Your task to perform on an android device: When is my next appointment? Image 0: 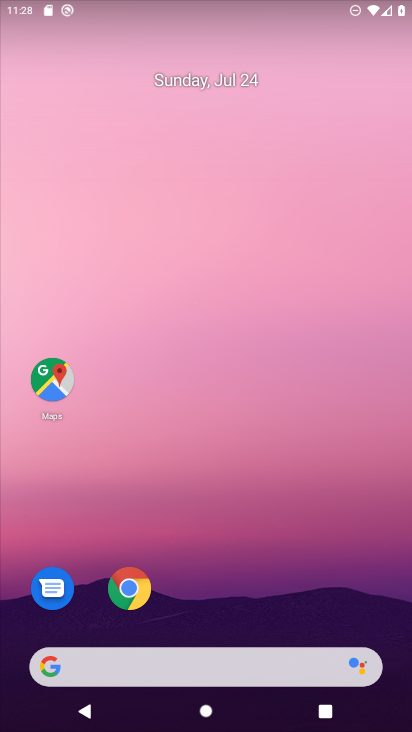
Step 0: drag from (243, 624) to (204, 207)
Your task to perform on an android device: When is my next appointment? Image 1: 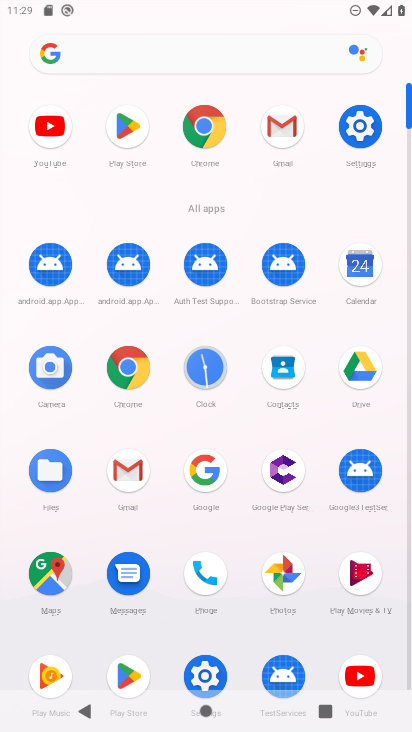
Step 1: click (377, 266)
Your task to perform on an android device: When is my next appointment? Image 2: 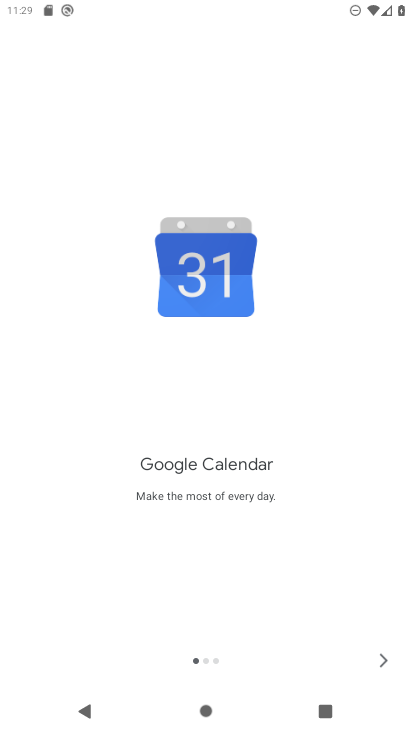
Step 2: click (382, 662)
Your task to perform on an android device: When is my next appointment? Image 3: 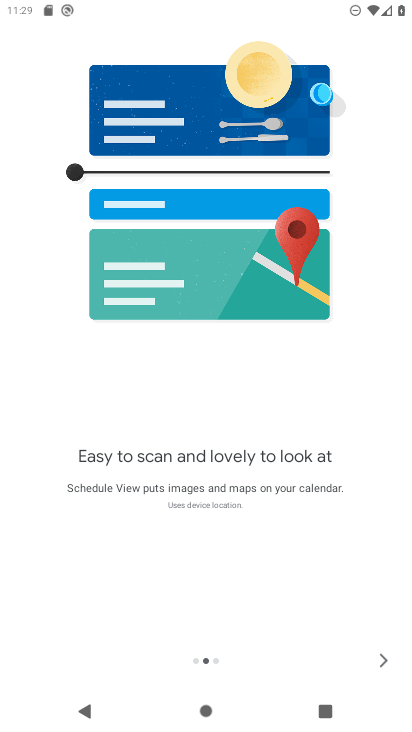
Step 3: click (382, 662)
Your task to perform on an android device: When is my next appointment? Image 4: 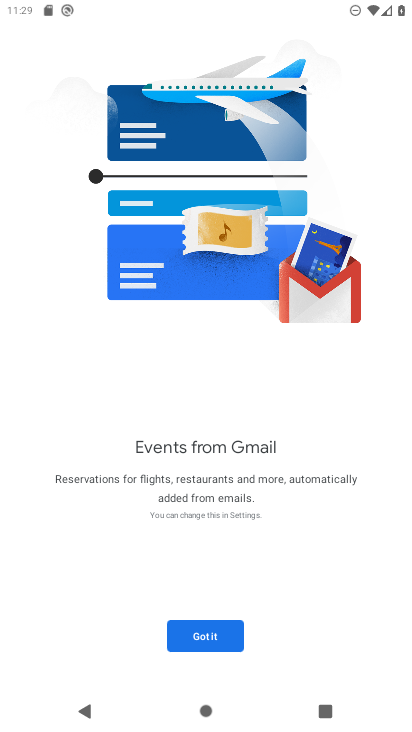
Step 4: click (209, 623)
Your task to perform on an android device: When is my next appointment? Image 5: 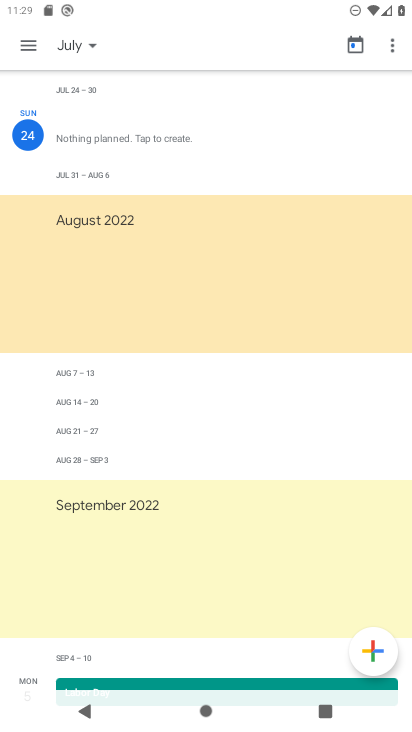
Step 5: click (24, 48)
Your task to perform on an android device: When is my next appointment? Image 6: 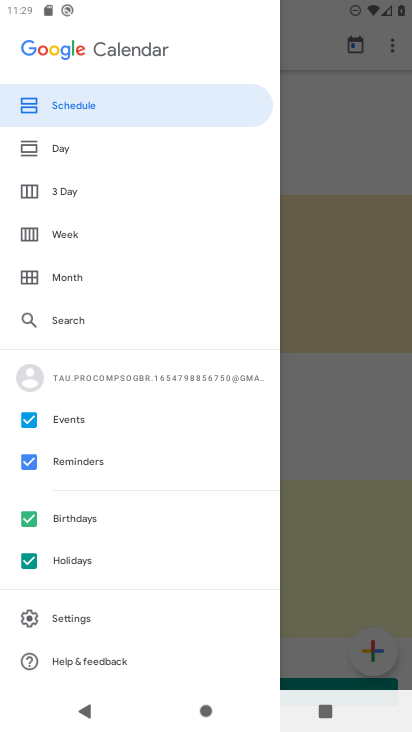
Step 6: click (85, 108)
Your task to perform on an android device: When is my next appointment? Image 7: 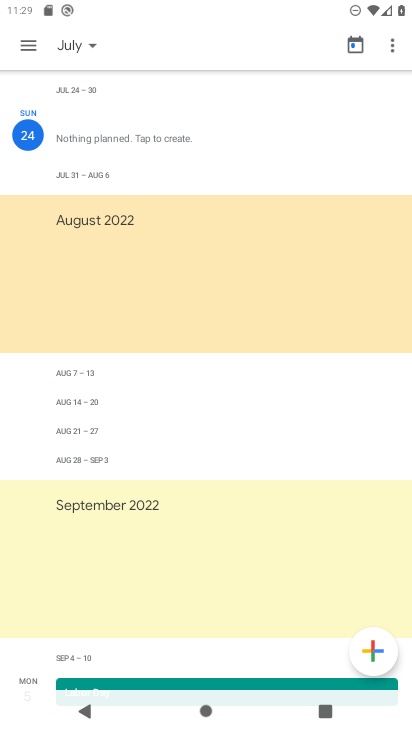
Step 7: task complete